Your task to perform on an android device: Open the Play Movies app and select the watchlist tab. Image 0: 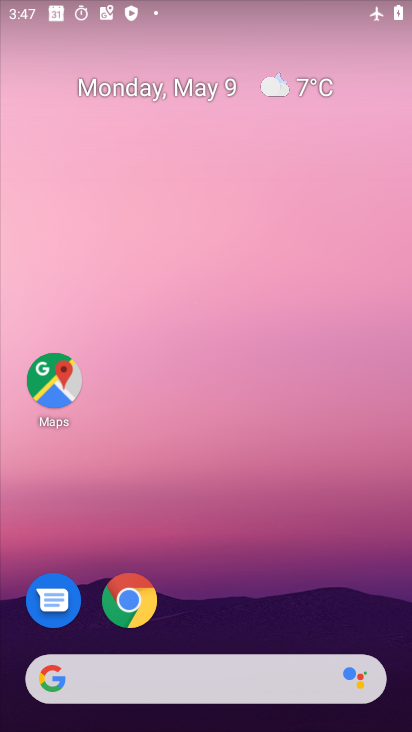
Step 0: drag from (324, 593) to (306, 205)
Your task to perform on an android device: Open the Play Movies app and select the watchlist tab. Image 1: 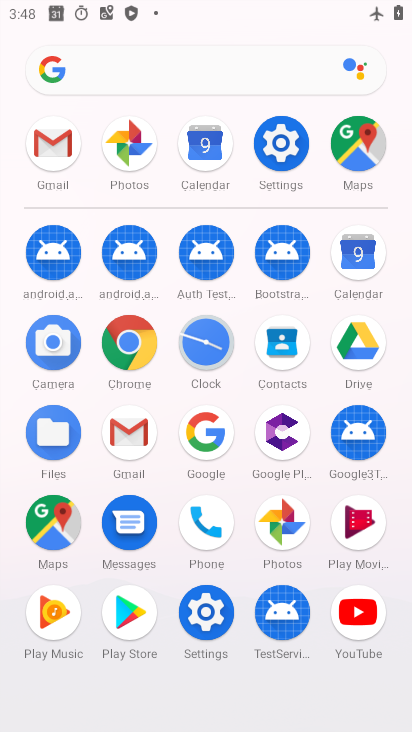
Step 1: click (359, 515)
Your task to perform on an android device: Open the Play Movies app and select the watchlist tab. Image 2: 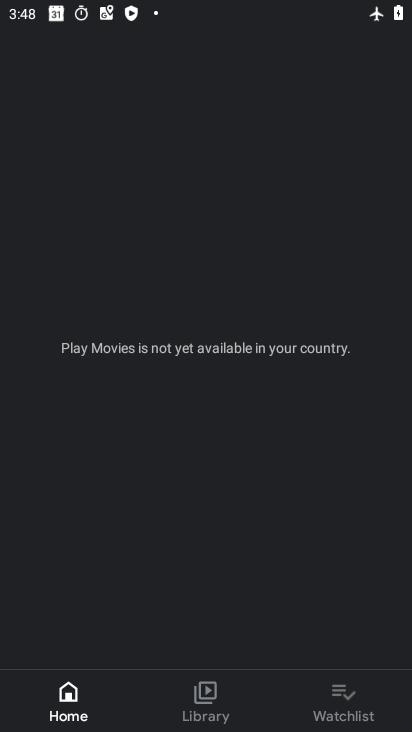
Step 2: click (353, 701)
Your task to perform on an android device: Open the Play Movies app and select the watchlist tab. Image 3: 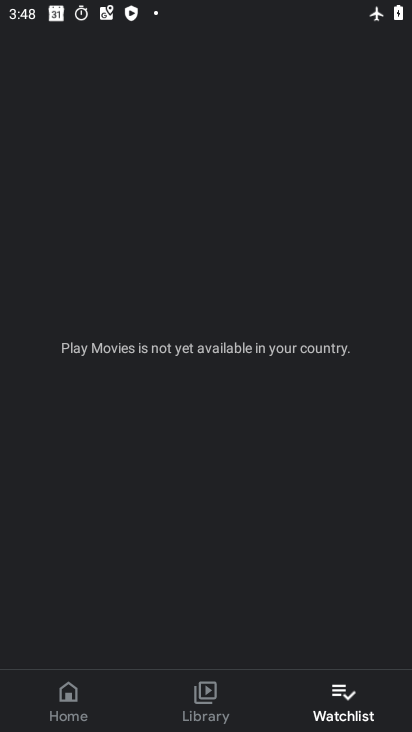
Step 3: task complete